Your task to perform on an android device: Open the phone app and click the voicemail tab. Image 0: 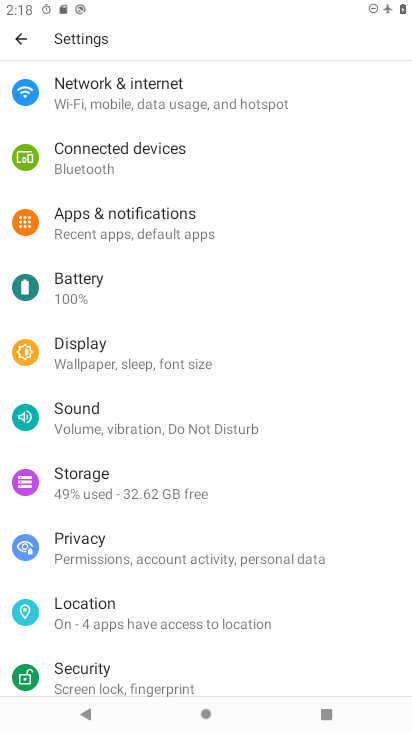
Step 0: press home button
Your task to perform on an android device: Open the phone app and click the voicemail tab. Image 1: 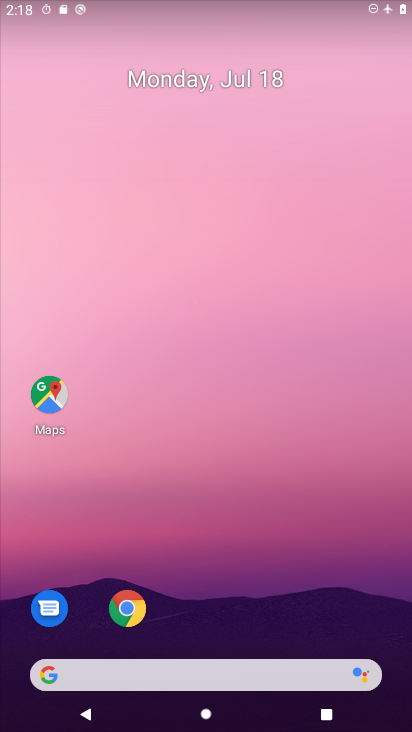
Step 1: drag from (234, 721) to (236, 111)
Your task to perform on an android device: Open the phone app and click the voicemail tab. Image 2: 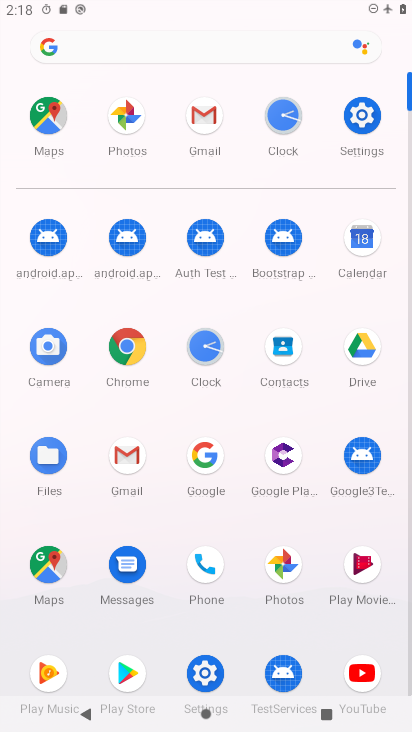
Step 2: click (210, 562)
Your task to perform on an android device: Open the phone app and click the voicemail tab. Image 3: 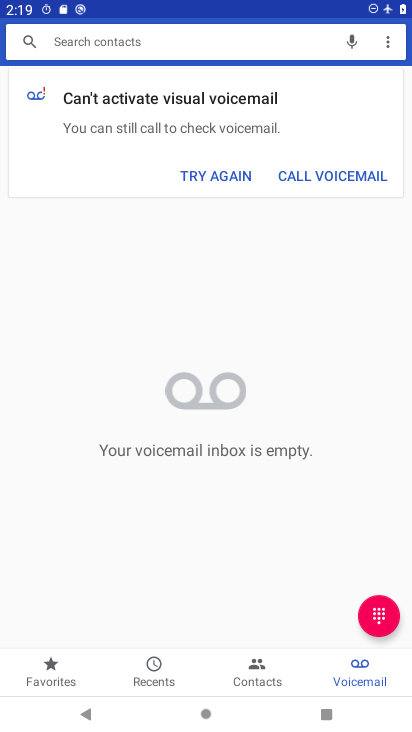
Step 3: task complete